Your task to perform on an android device: Open Maps and search for coffee Image 0: 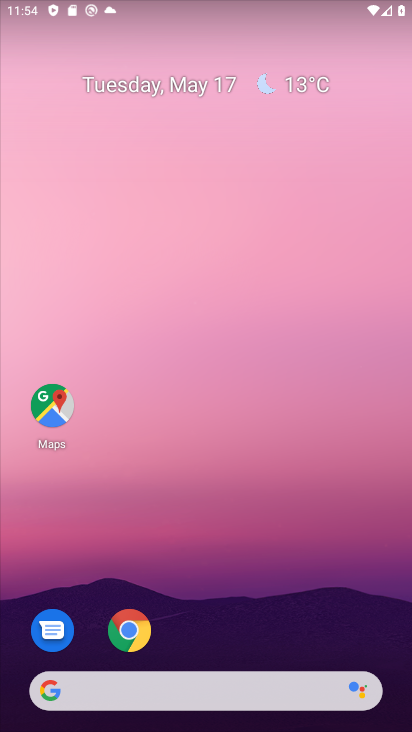
Step 0: drag from (225, 693) to (214, 131)
Your task to perform on an android device: Open Maps and search for coffee Image 1: 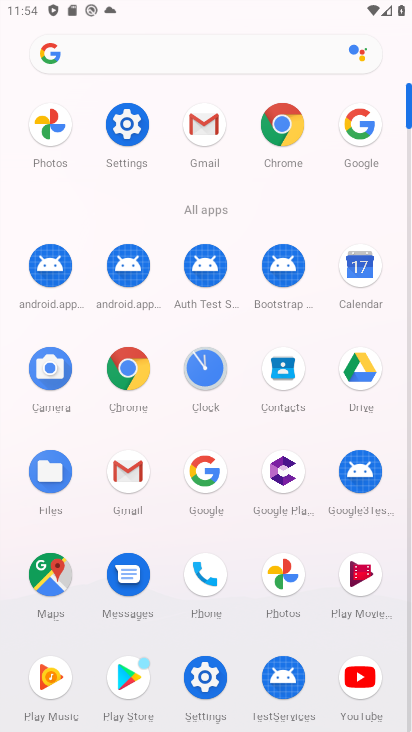
Step 1: click (46, 576)
Your task to perform on an android device: Open Maps and search for coffee Image 2: 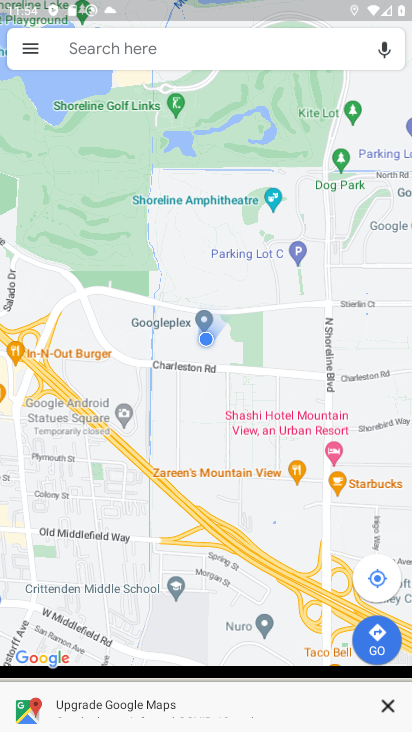
Step 2: click (202, 48)
Your task to perform on an android device: Open Maps and search for coffee Image 3: 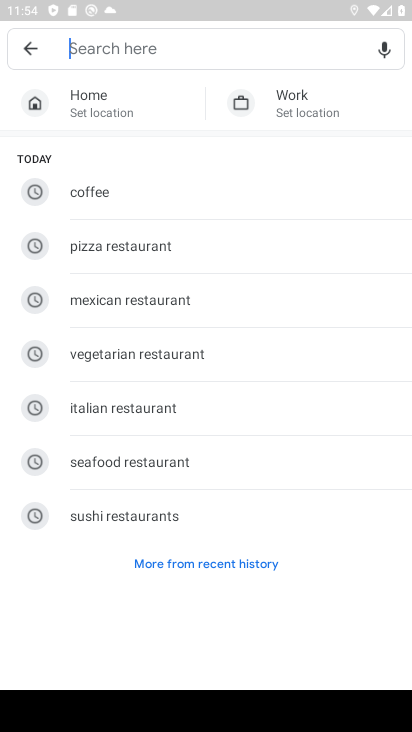
Step 3: type "coffee"
Your task to perform on an android device: Open Maps and search for coffee Image 4: 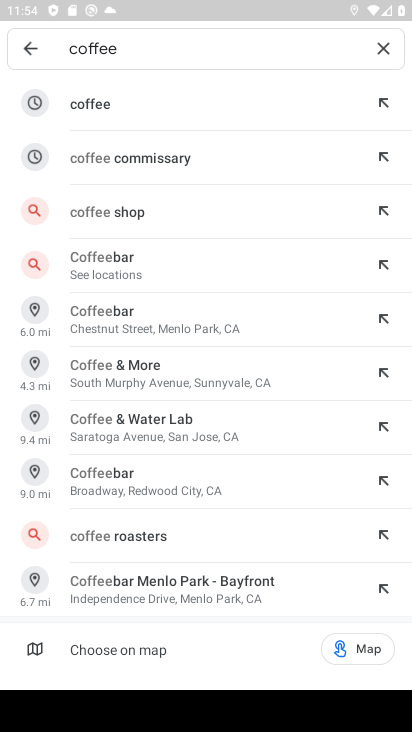
Step 4: click (89, 101)
Your task to perform on an android device: Open Maps and search for coffee Image 5: 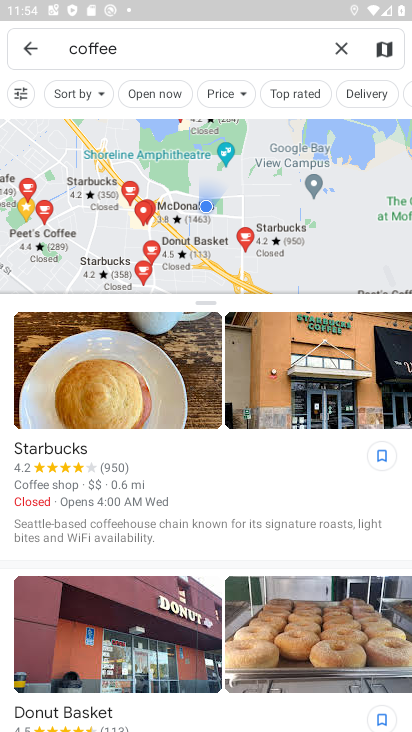
Step 5: task complete